Your task to perform on an android device: install app "Microsoft Outlook" Image 0: 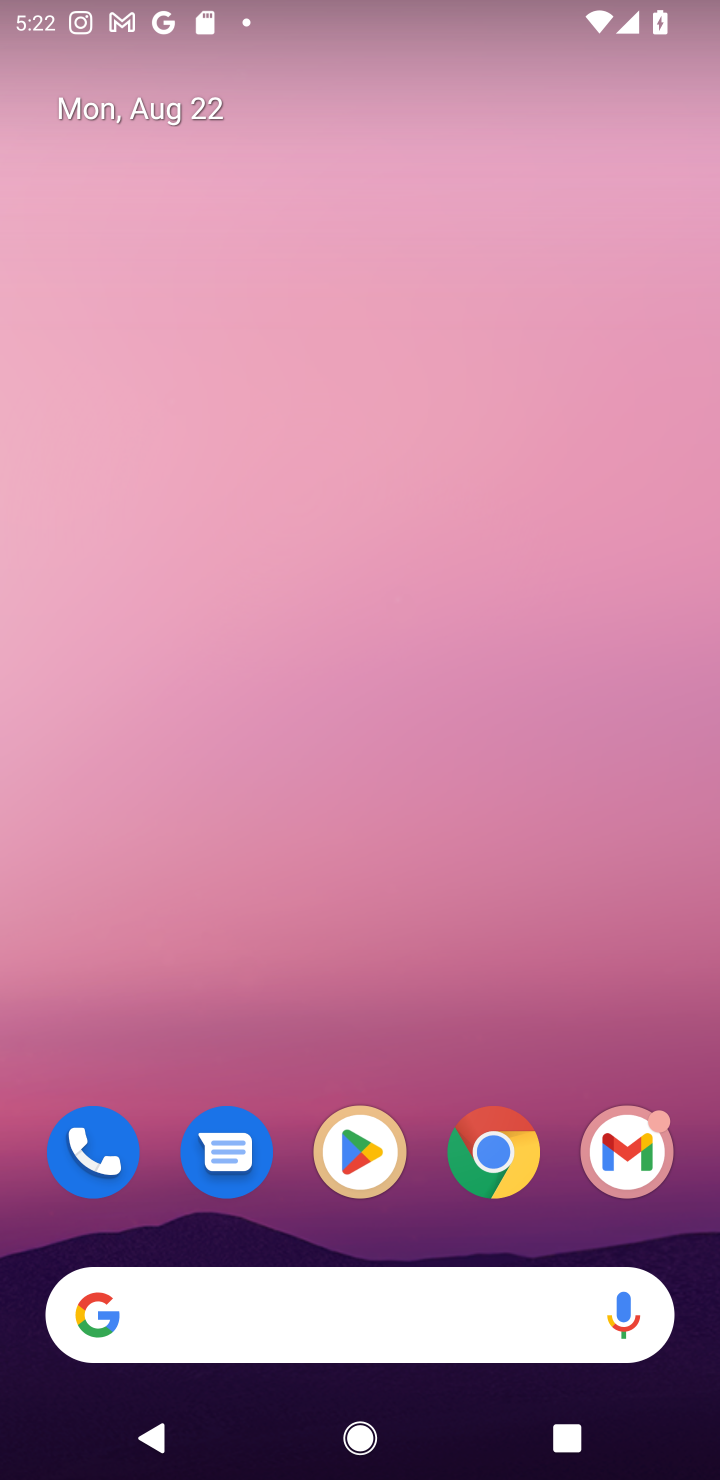
Step 0: click (377, 1170)
Your task to perform on an android device: install app "Microsoft Outlook" Image 1: 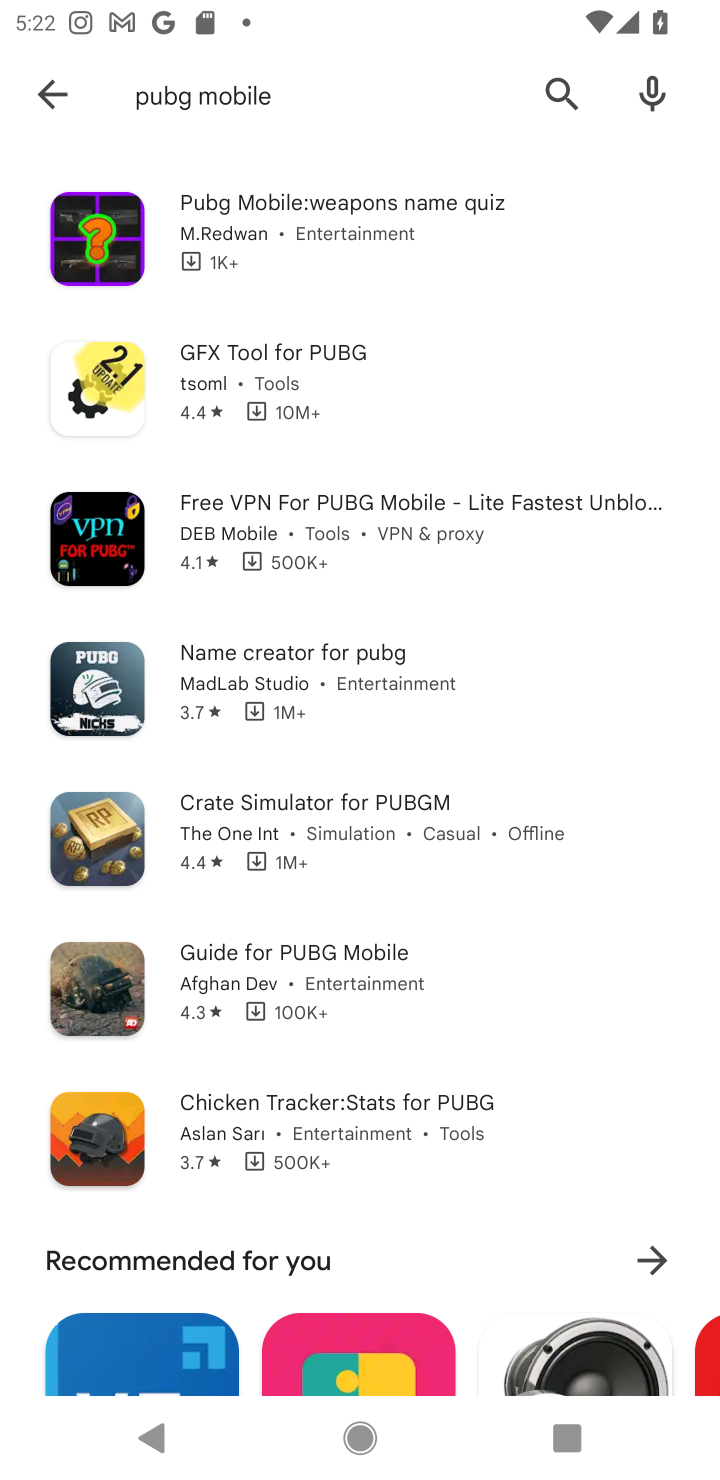
Step 1: click (50, 101)
Your task to perform on an android device: install app "Microsoft Outlook" Image 2: 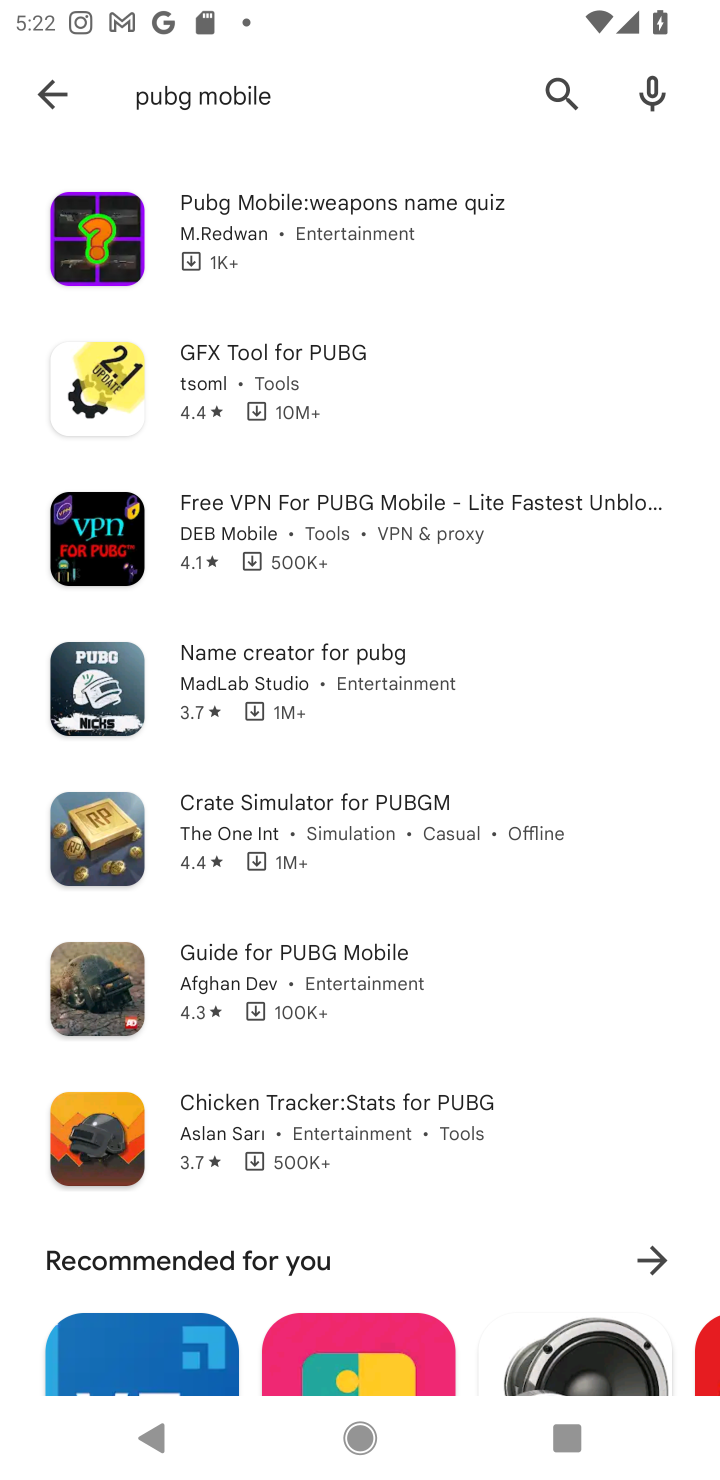
Step 2: click (79, 97)
Your task to perform on an android device: install app "Microsoft Outlook" Image 3: 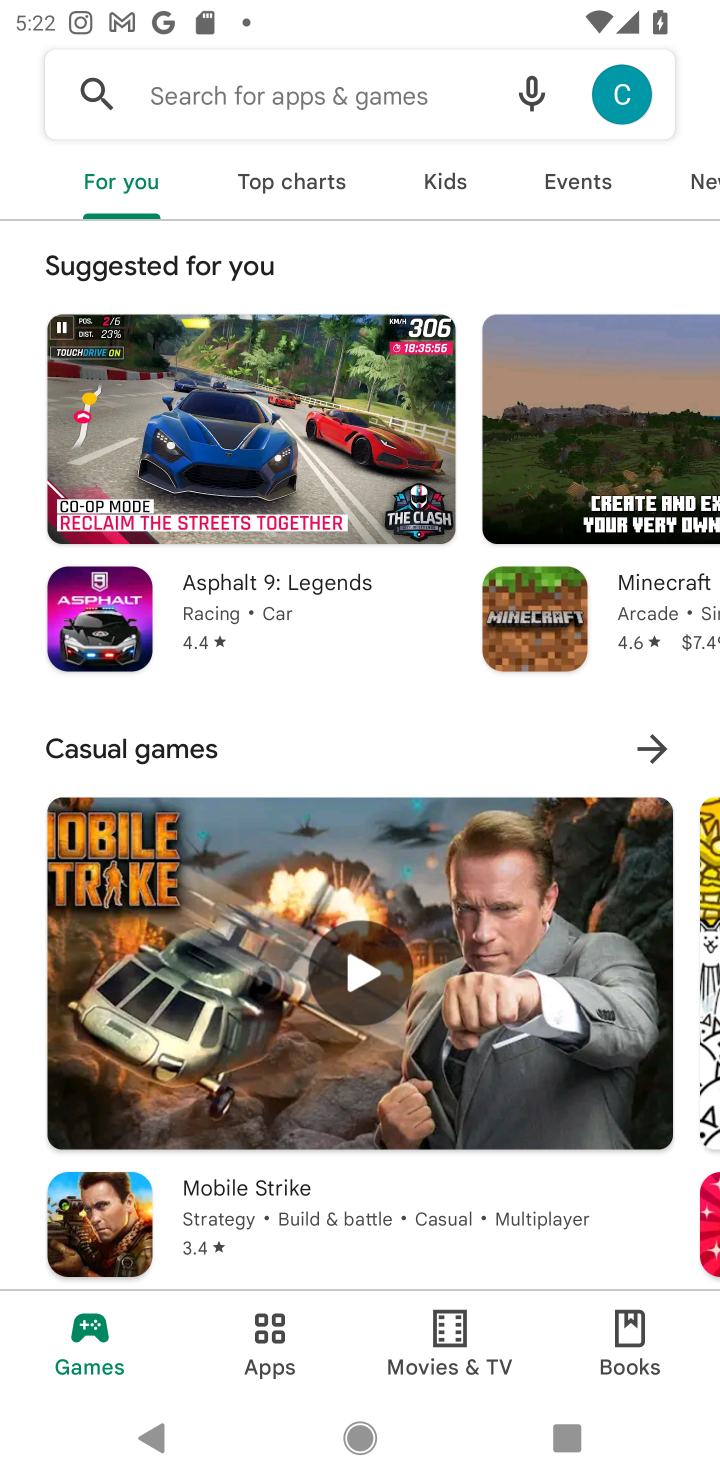
Step 3: click (162, 92)
Your task to perform on an android device: install app "Microsoft Outlook" Image 4: 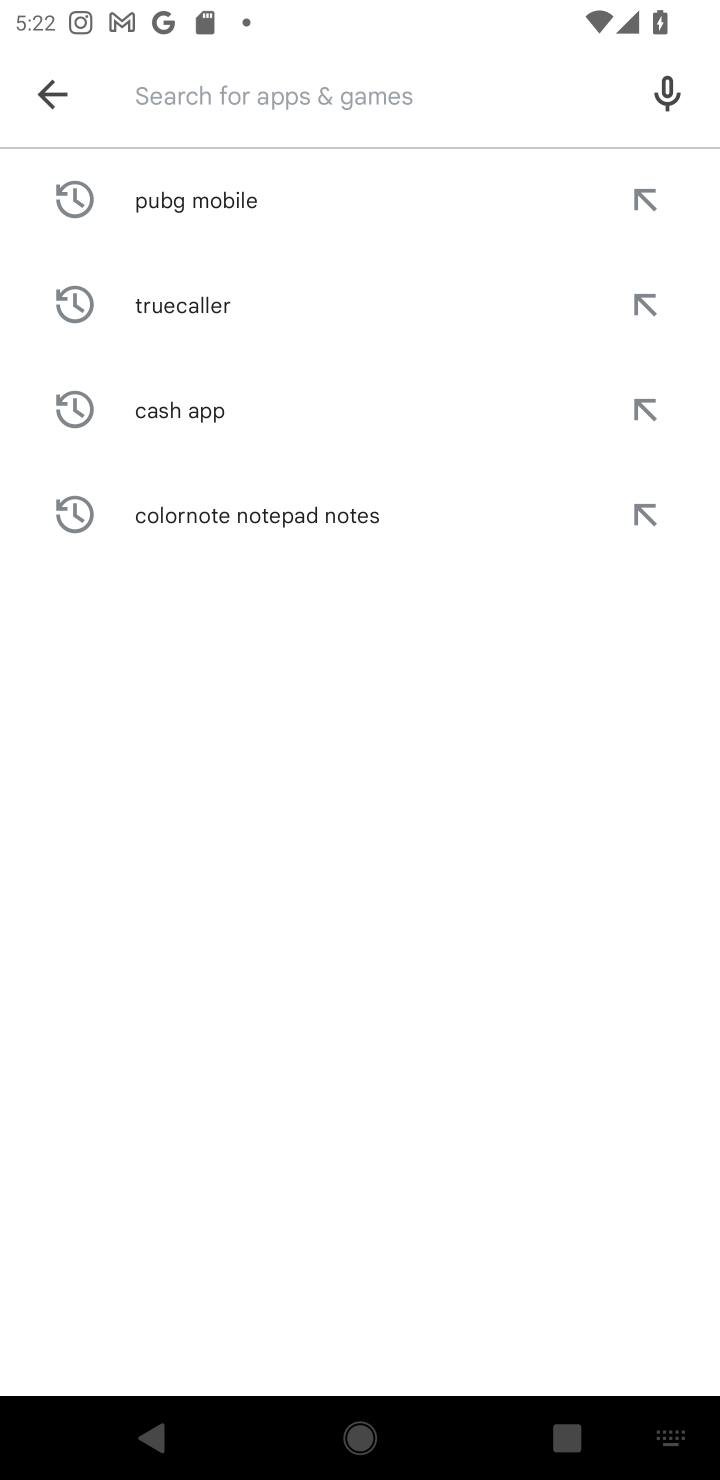
Step 4: type "Microsoft Outlook"
Your task to perform on an android device: install app "Microsoft Outlook" Image 5: 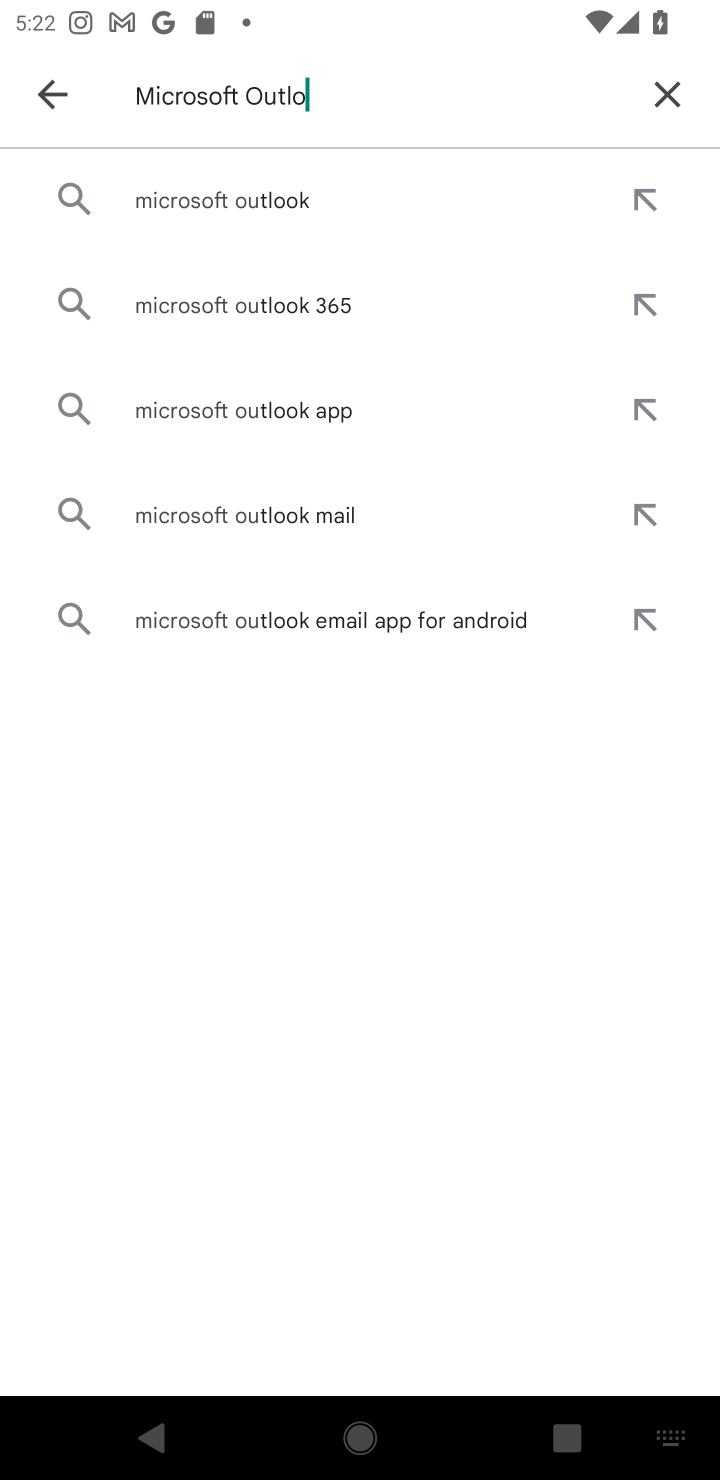
Step 5: type ""
Your task to perform on an android device: install app "Microsoft Outlook" Image 6: 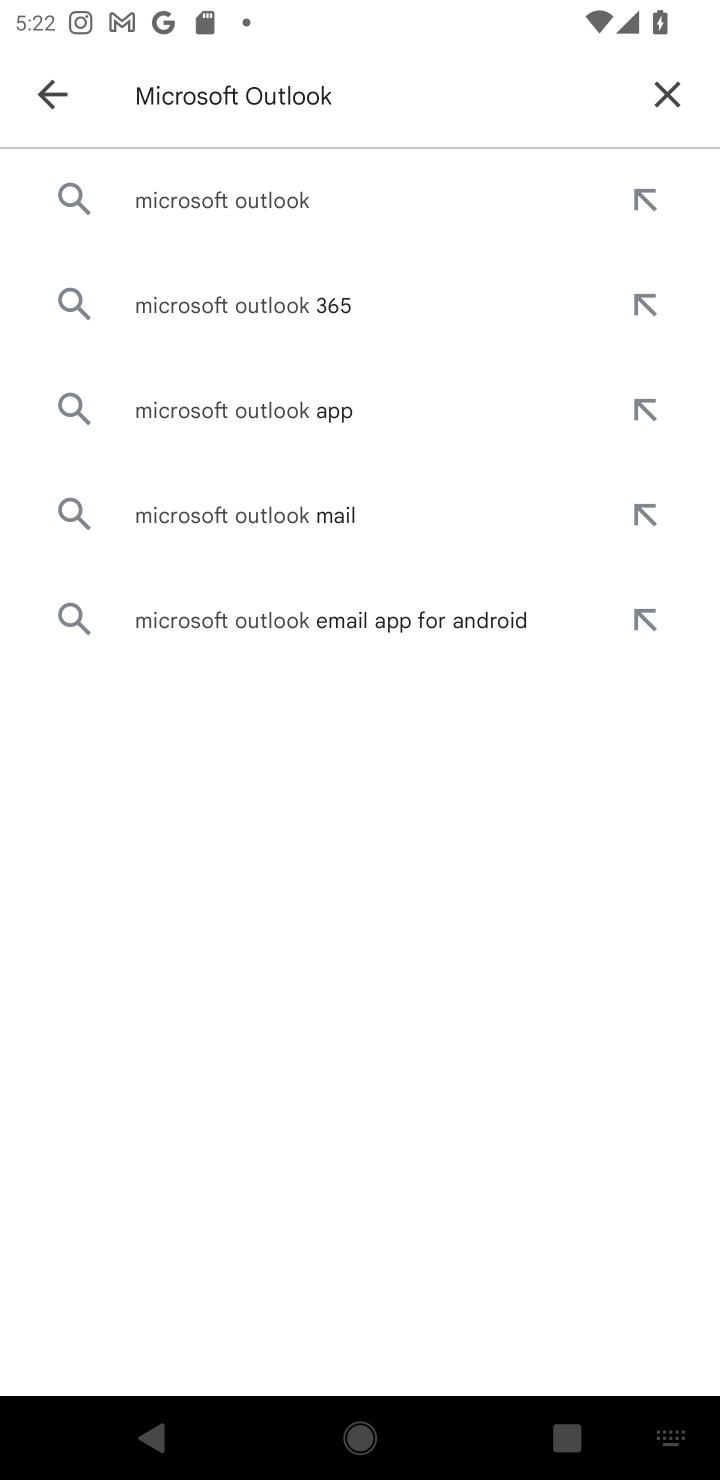
Step 6: click (202, 213)
Your task to perform on an android device: install app "Microsoft Outlook" Image 7: 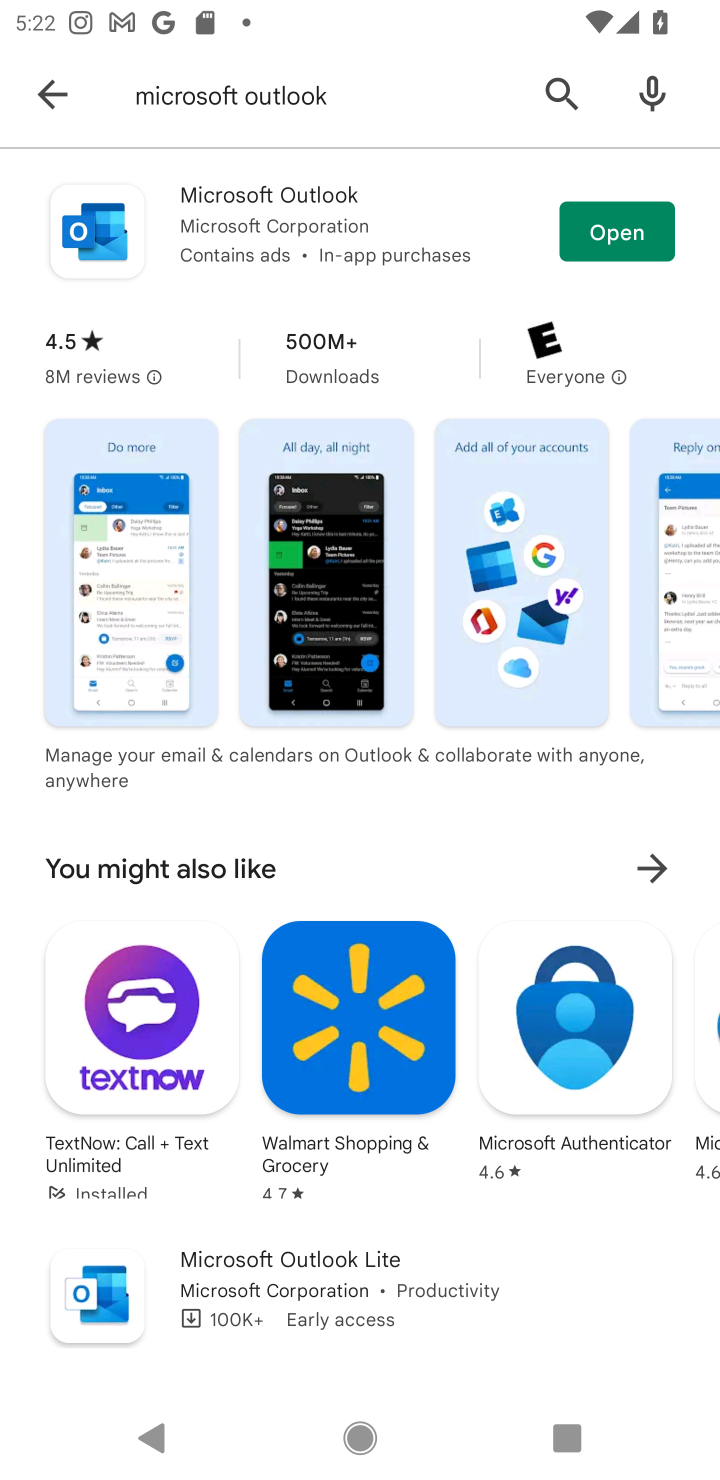
Step 7: task complete